Your task to perform on an android device: Go to Google Image 0: 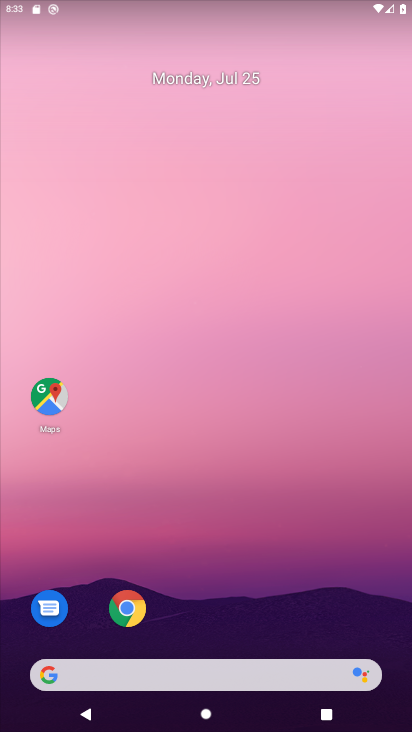
Step 0: drag from (263, 552) to (266, 102)
Your task to perform on an android device: Go to Google Image 1: 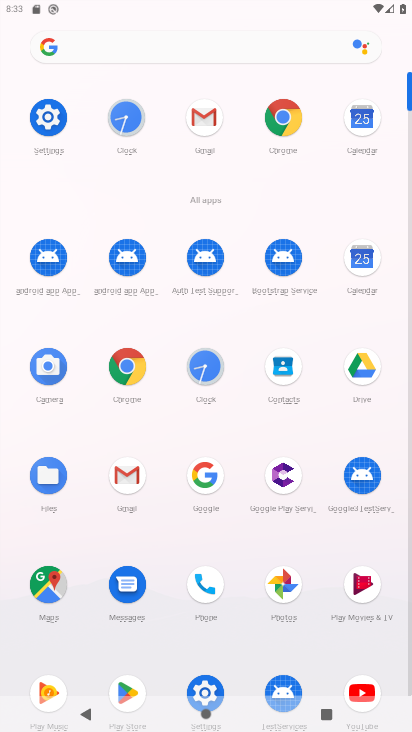
Step 1: click (199, 467)
Your task to perform on an android device: Go to Google Image 2: 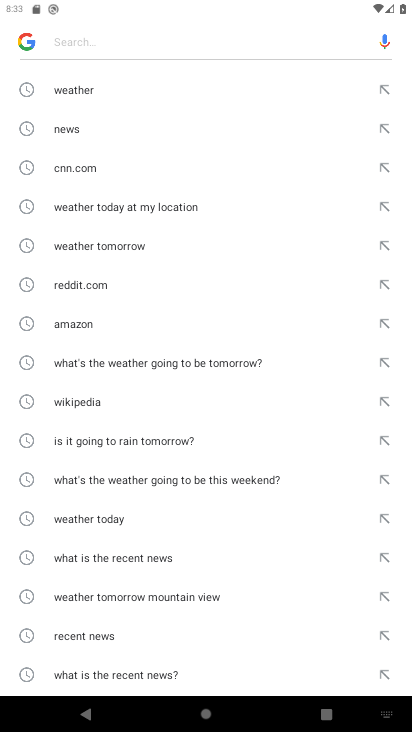
Step 2: task complete